Your task to perform on an android device: turn on the 24-hour format for clock Image 0: 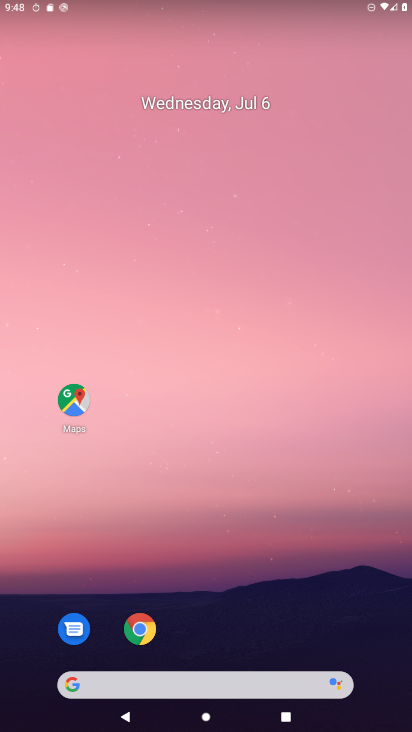
Step 0: drag from (245, 699) to (237, 72)
Your task to perform on an android device: turn on the 24-hour format for clock Image 1: 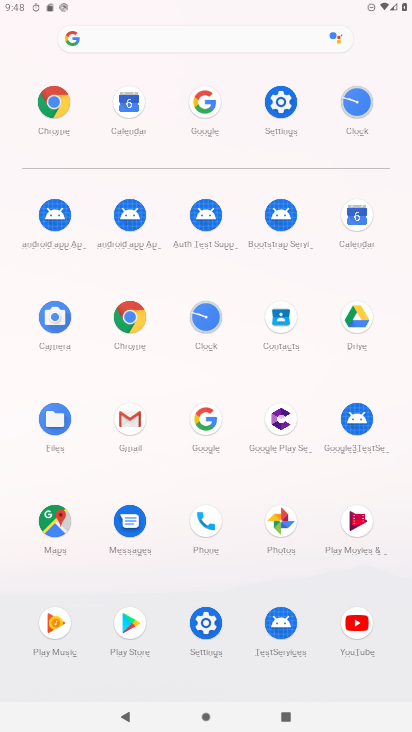
Step 1: click (211, 310)
Your task to perform on an android device: turn on the 24-hour format for clock Image 2: 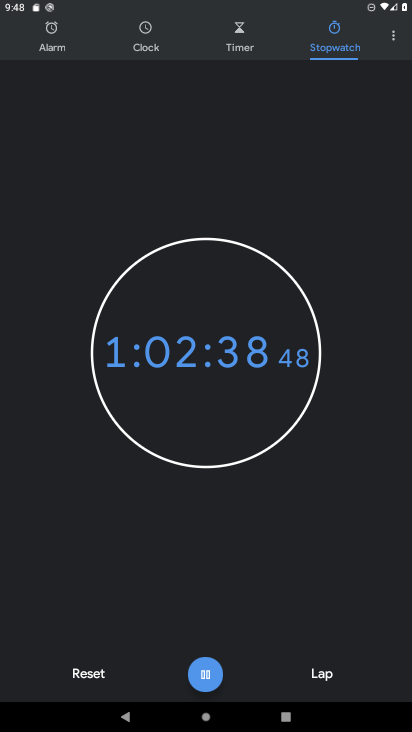
Step 2: click (393, 40)
Your task to perform on an android device: turn on the 24-hour format for clock Image 3: 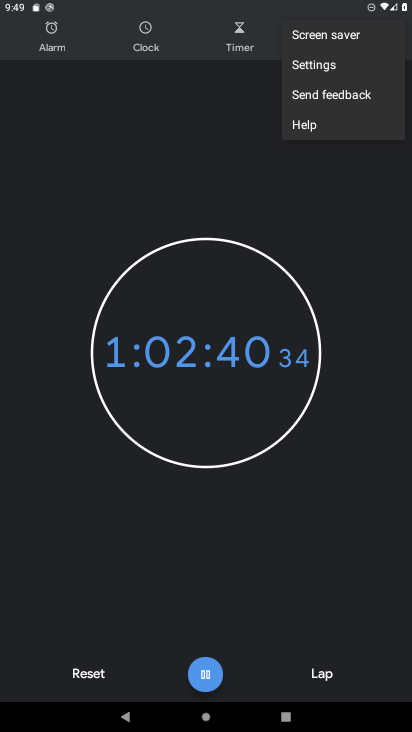
Step 3: click (309, 61)
Your task to perform on an android device: turn on the 24-hour format for clock Image 4: 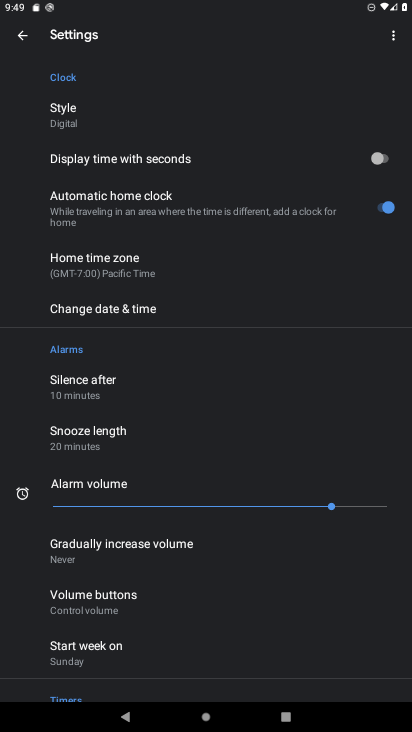
Step 4: click (121, 309)
Your task to perform on an android device: turn on the 24-hour format for clock Image 5: 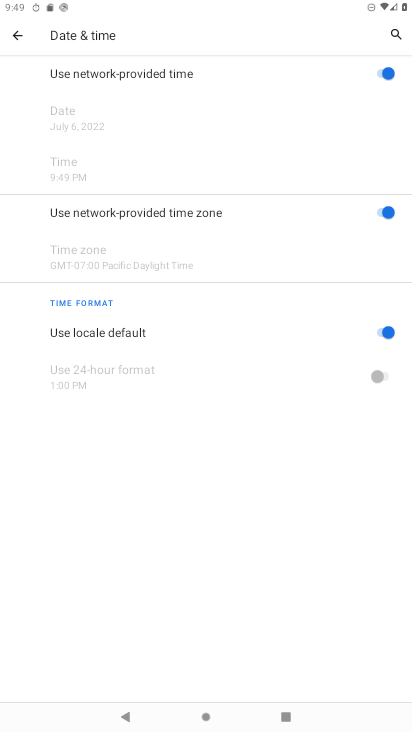
Step 5: click (380, 333)
Your task to perform on an android device: turn on the 24-hour format for clock Image 6: 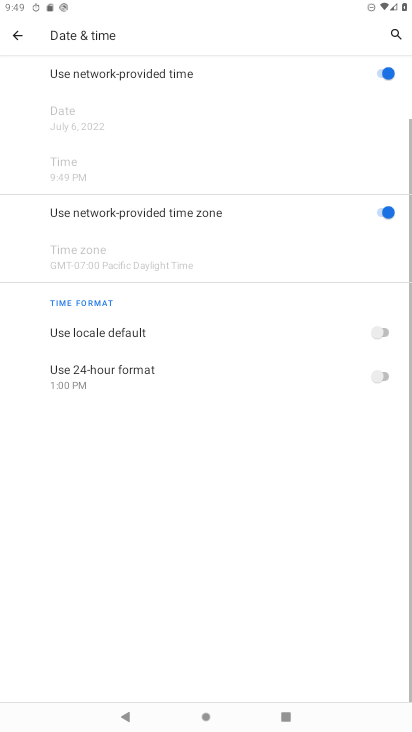
Step 6: click (382, 375)
Your task to perform on an android device: turn on the 24-hour format for clock Image 7: 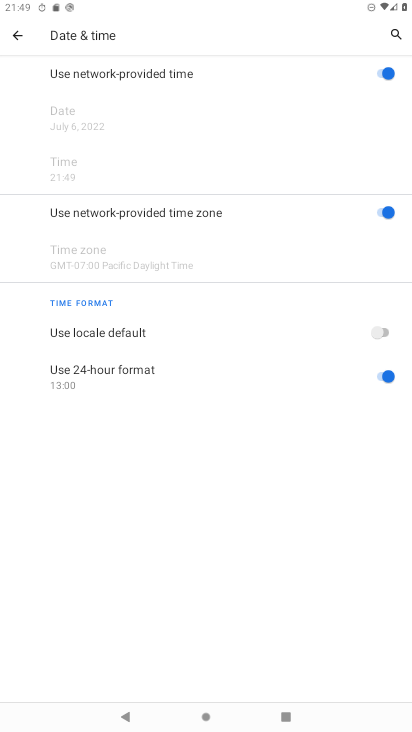
Step 7: task complete